Your task to perform on an android device: Open Reddit.com Image 0: 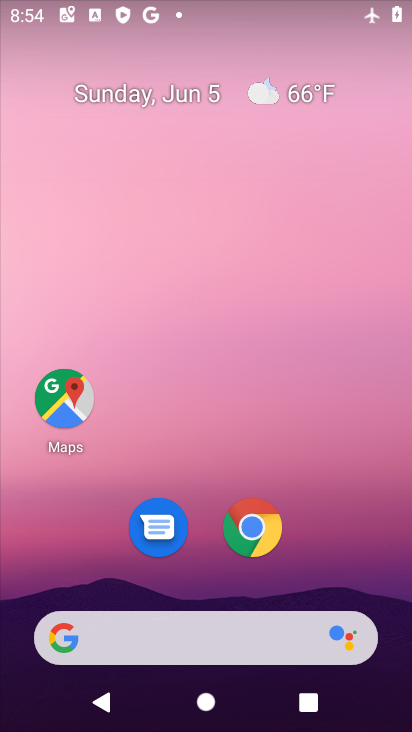
Step 0: click (257, 535)
Your task to perform on an android device: Open Reddit.com Image 1: 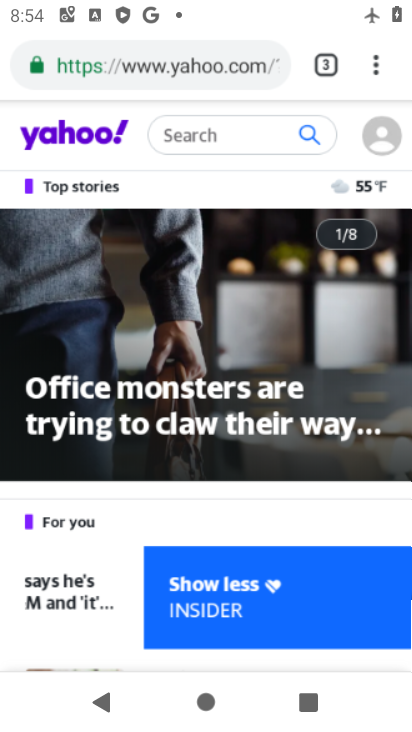
Step 1: click (316, 71)
Your task to perform on an android device: Open Reddit.com Image 2: 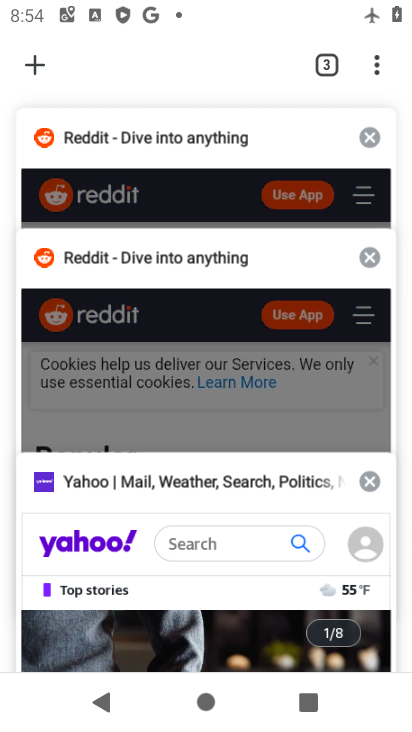
Step 2: click (221, 148)
Your task to perform on an android device: Open Reddit.com Image 3: 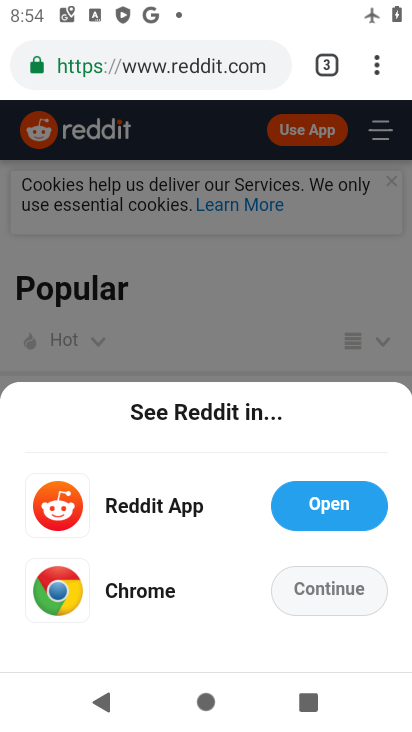
Step 3: task complete